Your task to perform on an android device: Go to notification settings Image 0: 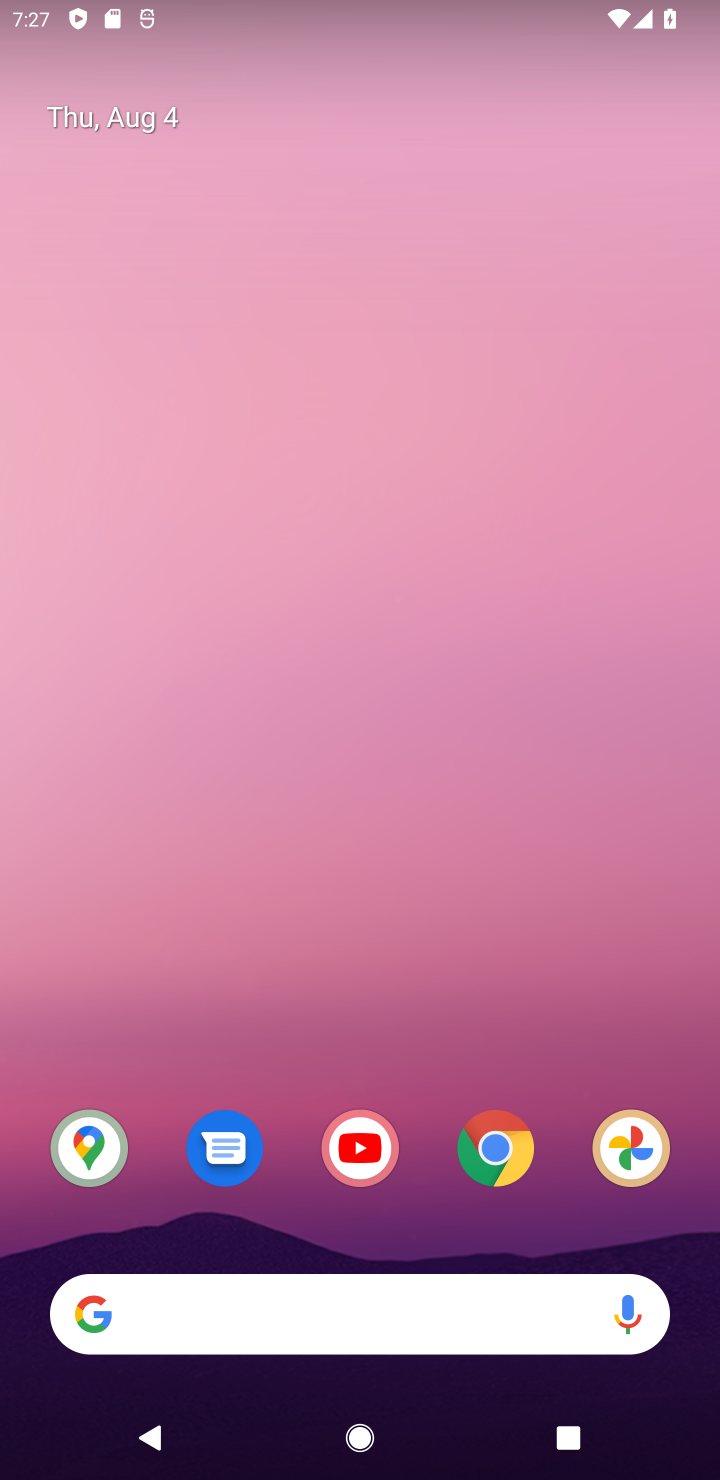
Step 0: drag from (538, 1058) to (402, 279)
Your task to perform on an android device: Go to notification settings Image 1: 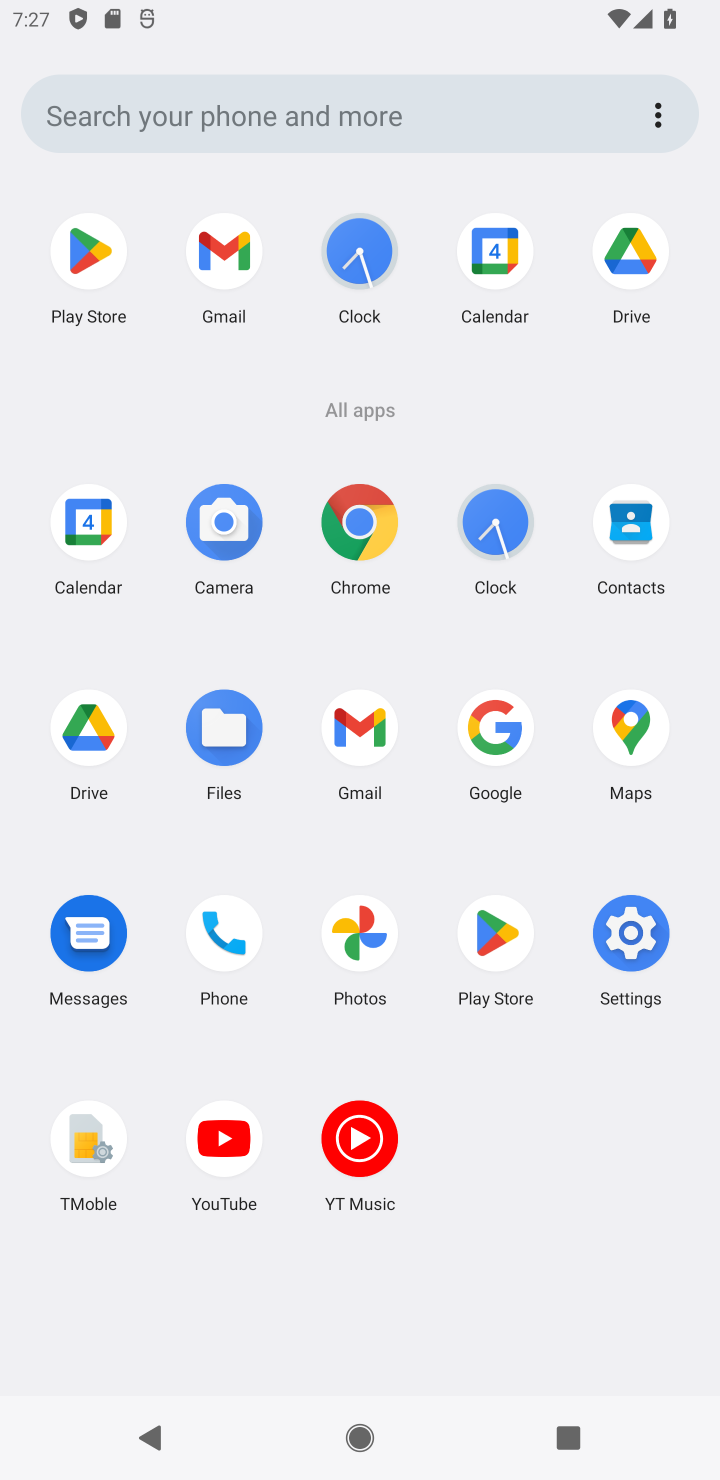
Step 1: click (643, 938)
Your task to perform on an android device: Go to notification settings Image 2: 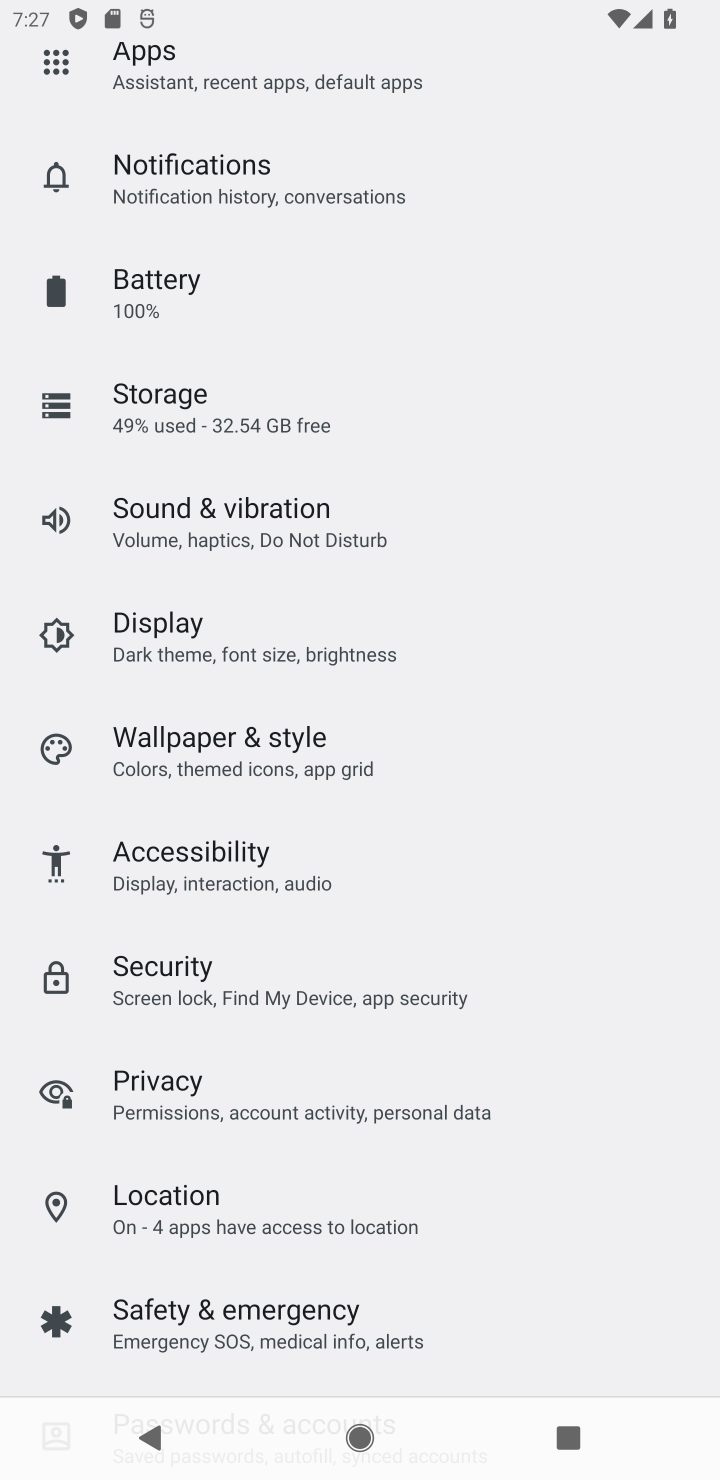
Step 2: click (419, 187)
Your task to perform on an android device: Go to notification settings Image 3: 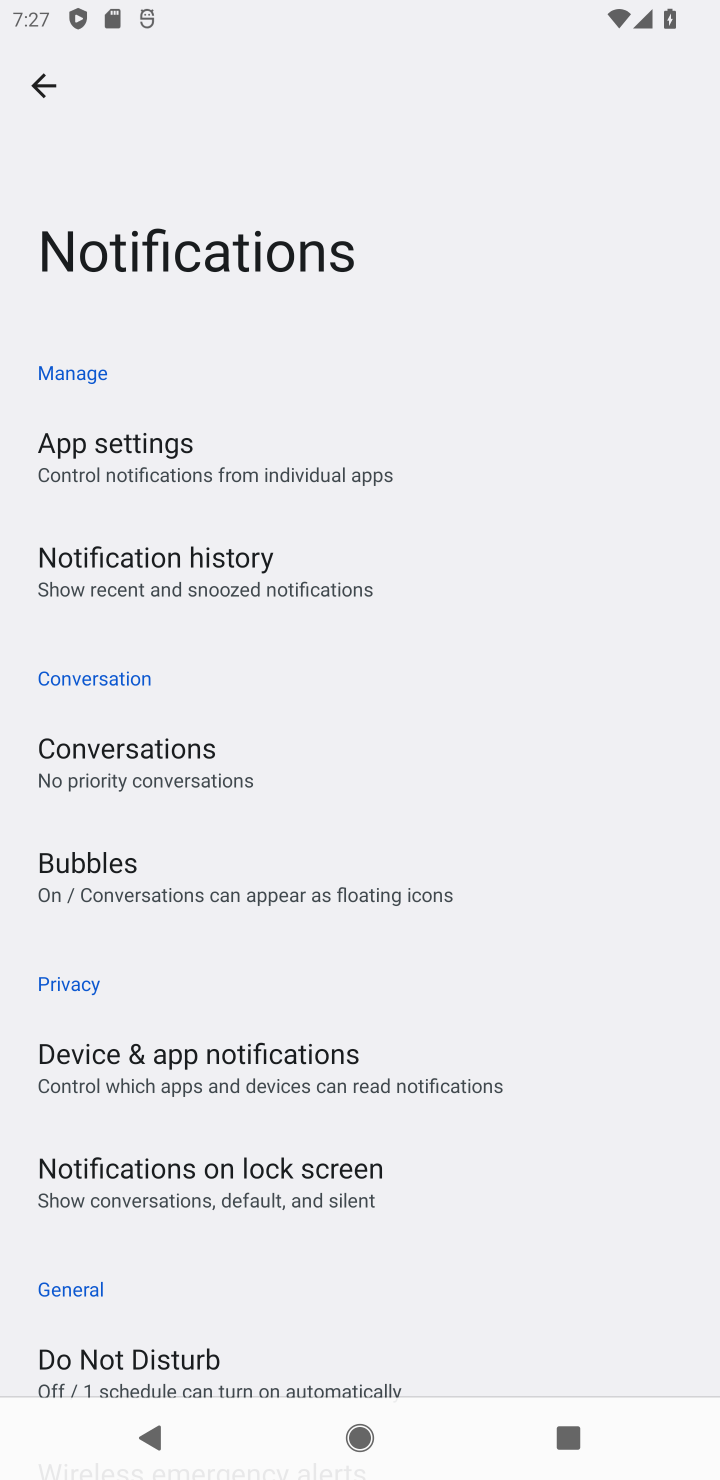
Step 3: task complete